Your task to perform on an android device: toggle pop-ups in chrome Image 0: 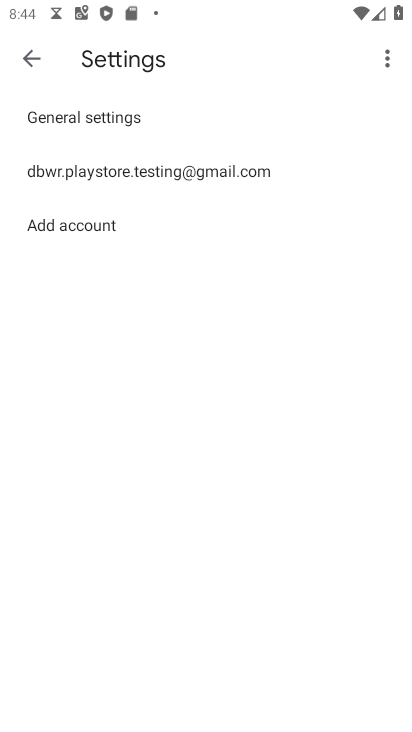
Step 0: press home button
Your task to perform on an android device: toggle pop-ups in chrome Image 1: 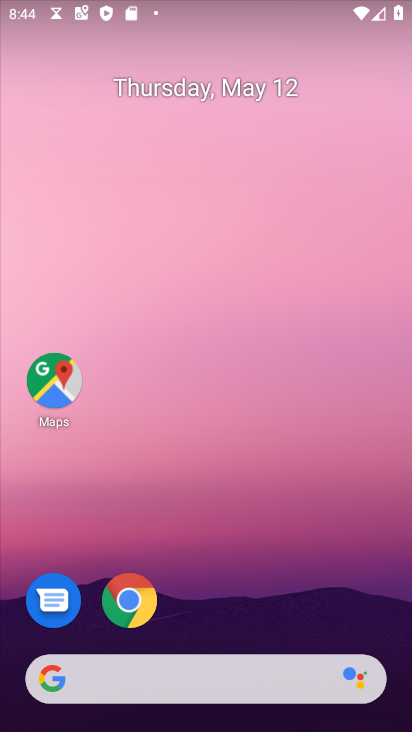
Step 1: click (137, 603)
Your task to perform on an android device: toggle pop-ups in chrome Image 2: 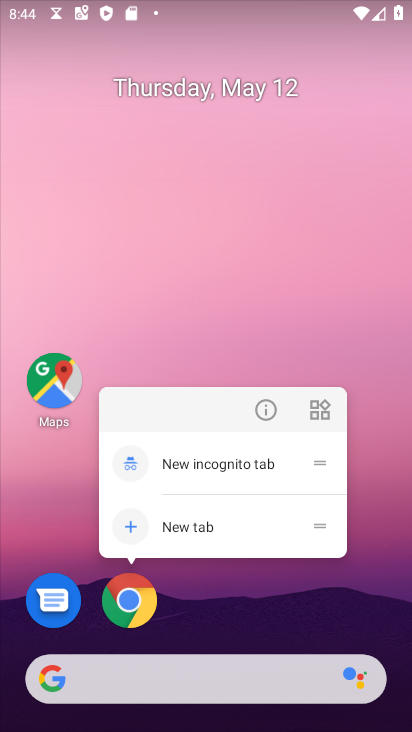
Step 2: click (123, 599)
Your task to perform on an android device: toggle pop-ups in chrome Image 3: 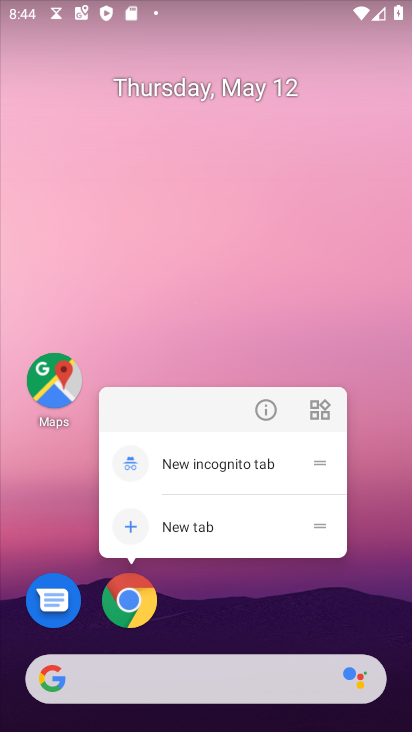
Step 3: click (135, 588)
Your task to perform on an android device: toggle pop-ups in chrome Image 4: 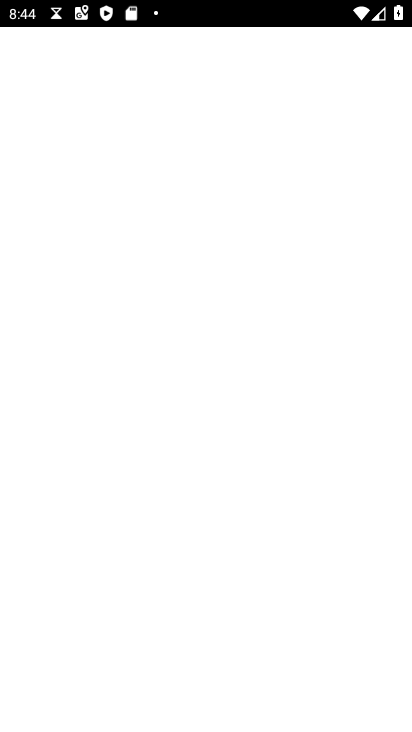
Step 4: click (129, 601)
Your task to perform on an android device: toggle pop-ups in chrome Image 5: 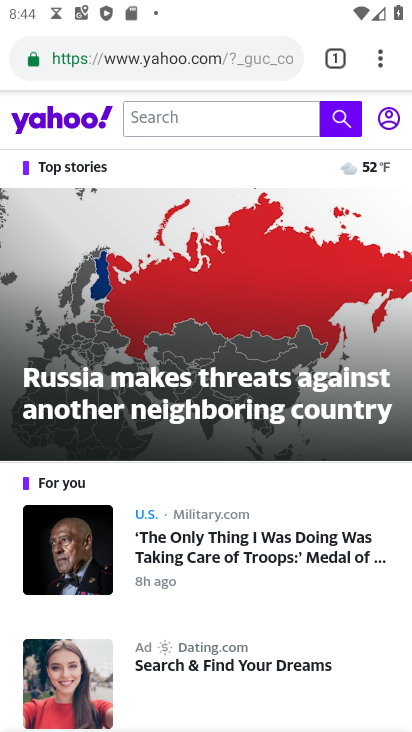
Step 5: click (377, 60)
Your task to perform on an android device: toggle pop-ups in chrome Image 6: 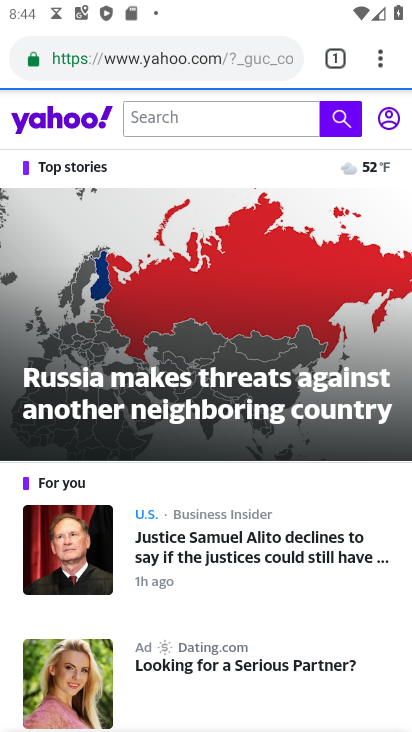
Step 6: click (379, 65)
Your task to perform on an android device: toggle pop-ups in chrome Image 7: 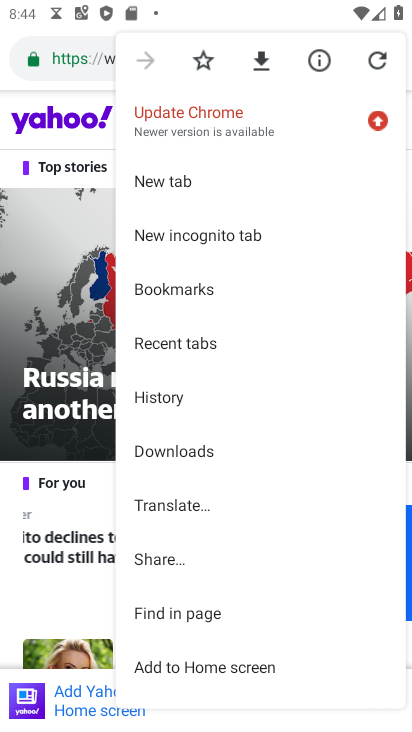
Step 7: drag from (214, 567) to (170, 232)
Your task to perform on an android device: toggle pop-ups in chrome Image 8: 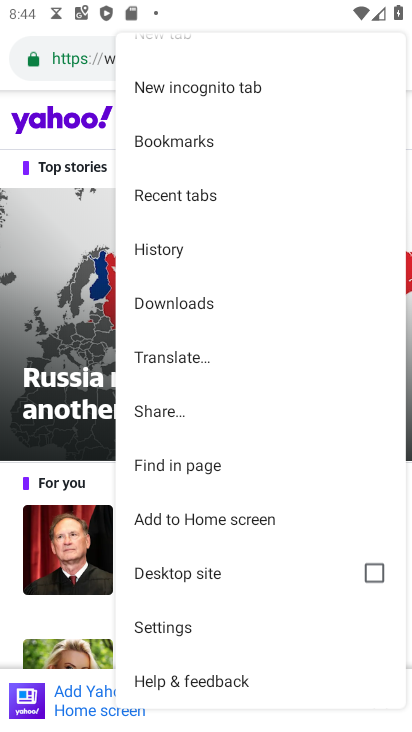
Step 8: click (185, 617)
Your task to perform on an android device: toggle pop-ups in chrome Image 9: 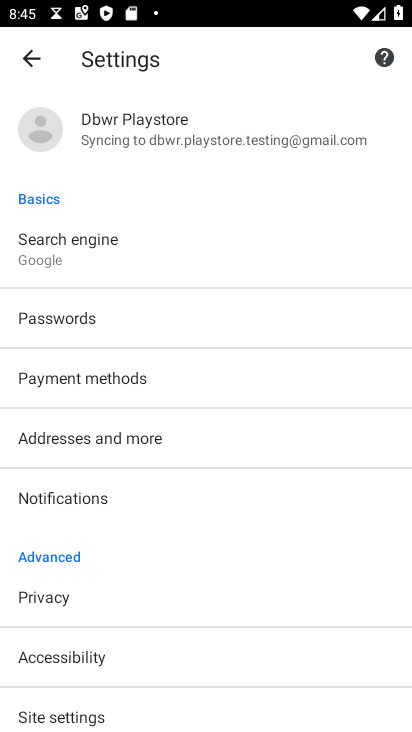
Step 9: drag from (171, 642) to (166, 316)
Your task to perform on an android device: toggle pop-ups in chrome Image 10: 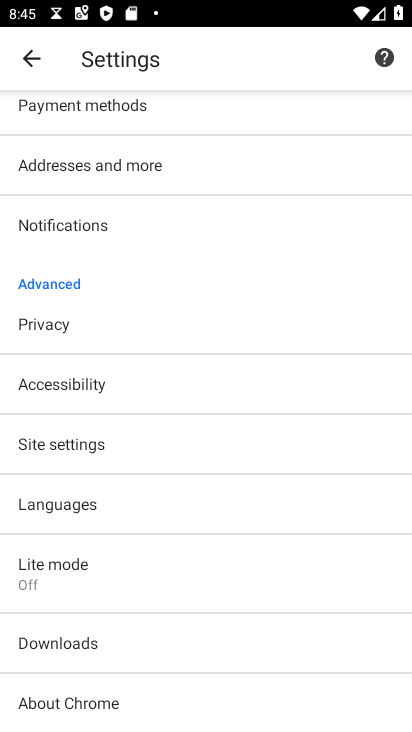
Step 10: click (54, 458)
Your task to perform on an android device: toggle pop-ups in chrome Image 11: 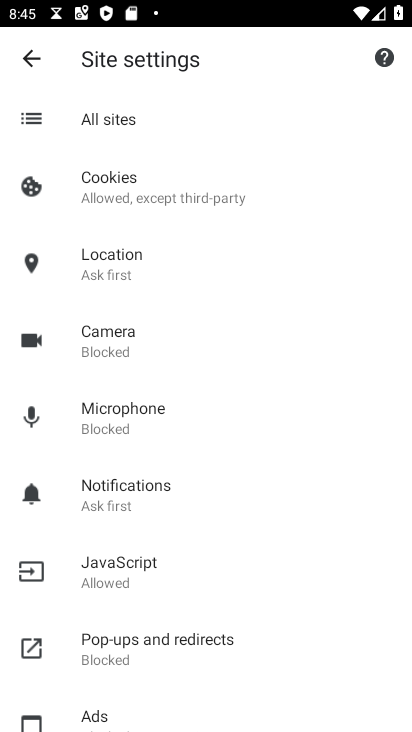
Step 11: drag from (164, 595) to (173, 464)
Your task to perform on an android device: toggle pop-ups in chrome Image 12: 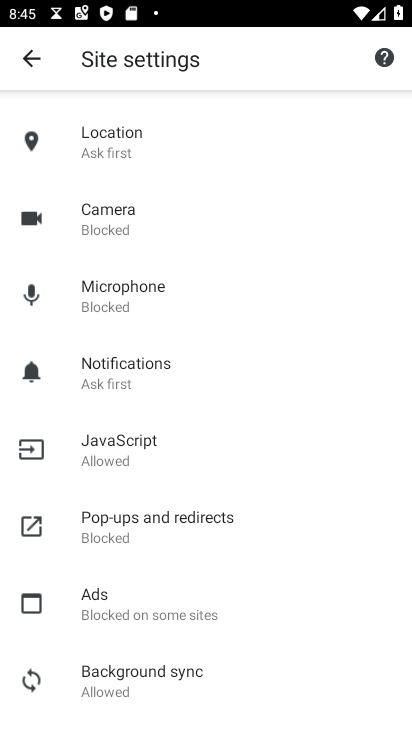
Step 12: click (166, 518)
Your task to perform on an android device: toggle pop-ups in chrome Image 13: 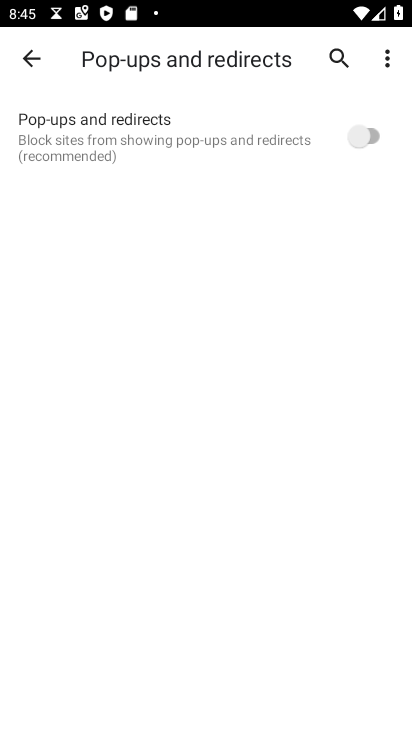
Step 13: click (389, 134)
Your task to perform on an android device: toggle pop-ups in chrome Image 14: 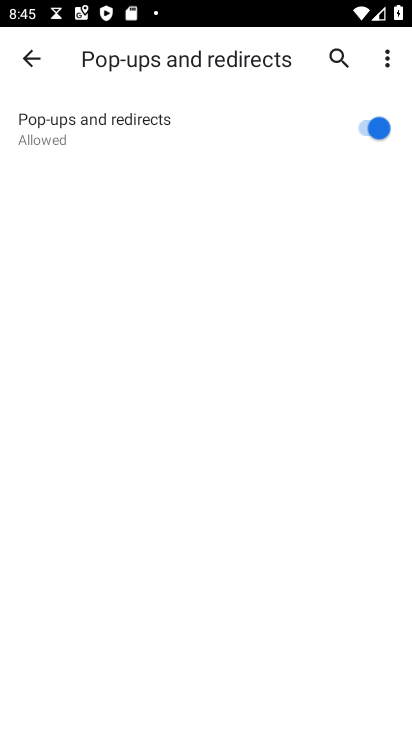
Step 14: task complete